Your task to perform on an android device: Go to Maps Image 0: 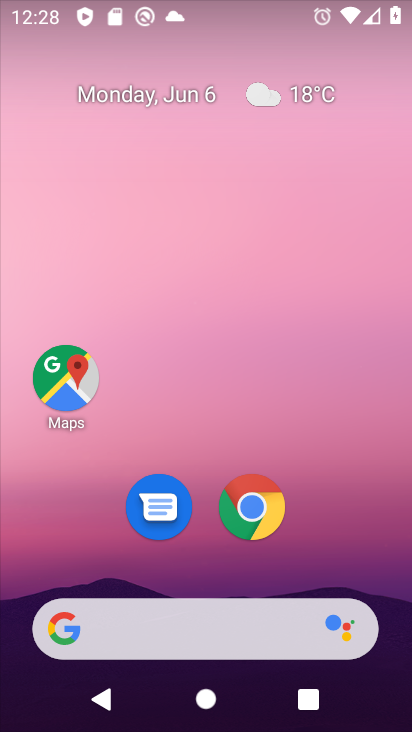
Step 0: click (95, 374)
Your task to perform on an android device: Go to Maps Image 1: 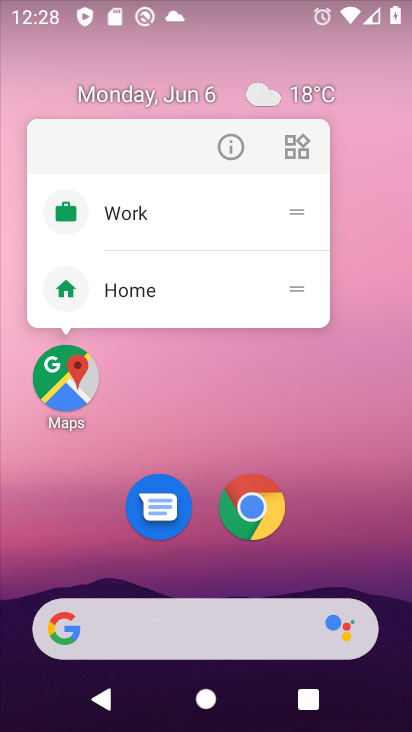
Step 1: click (71, 378)
Your task to perform on an android device: Go to Maps Image 2: 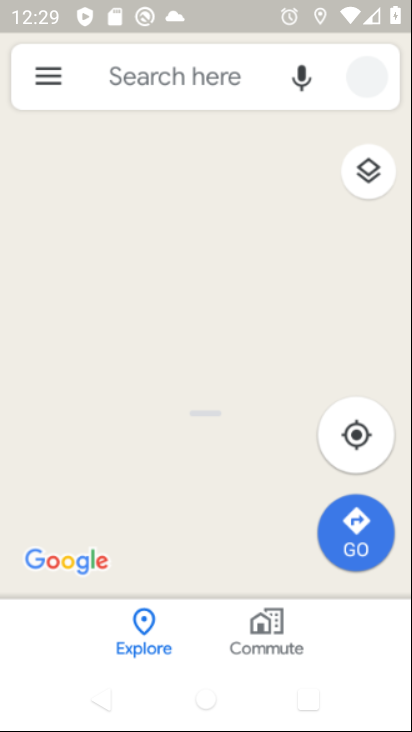
Step 2: click (71, 378)
Your task to perform on an android device: Go to Maps Image 3: 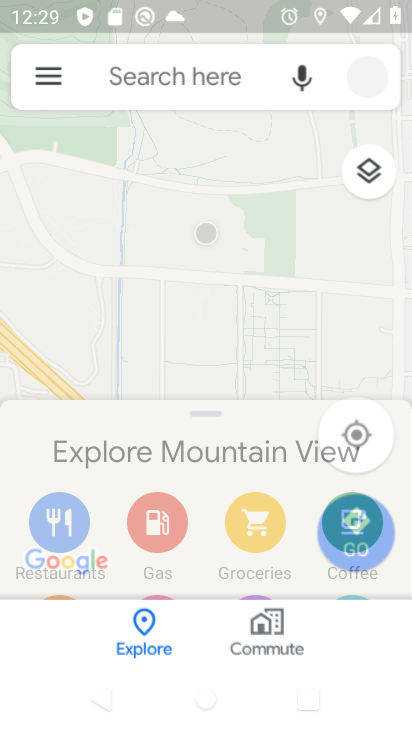
Step 3: click (71, 378)
Your task to perform on an android device: Go to Maps Image 4: 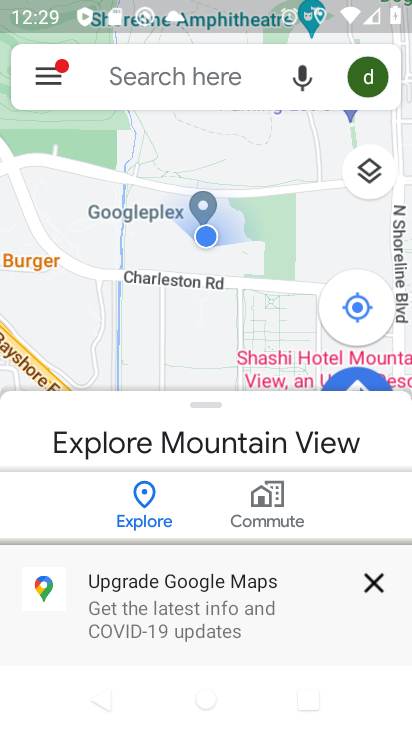
Step 4: task complete